Your task to perform on an android device: toggle javascript in the chrome app Image 0: 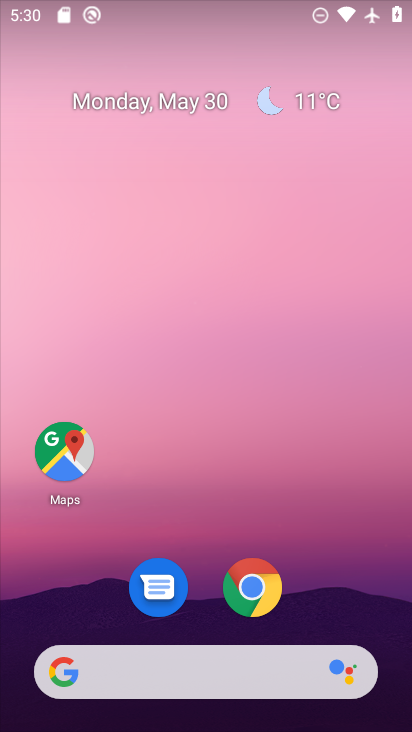
Step 0: drag from (303, 583) to (234, 10)
Your task to perform on an android device: toggle javascript in the chrome app Image 1: 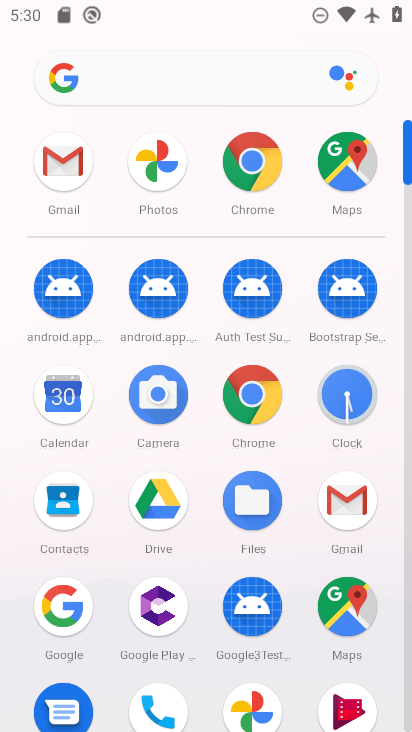
Step 1: drag from (18, 554) to (24, 222)
Your task to perform on an android device: toggle javascript in the chrome app Image 2: 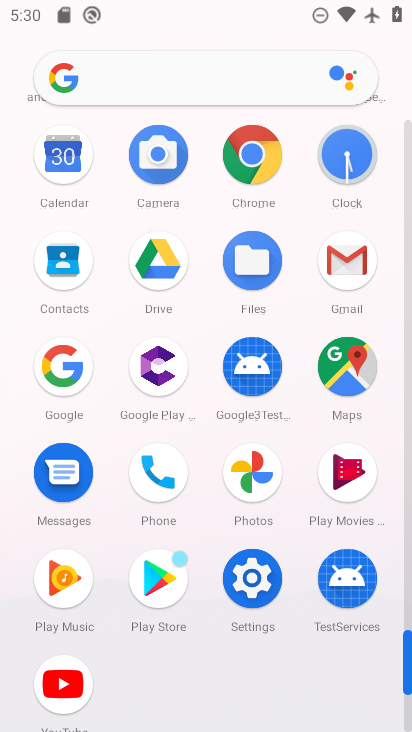
Step 2: click (253, 149)
Your task to perform on an android device: toggle javascript in the chrome app Image 3: 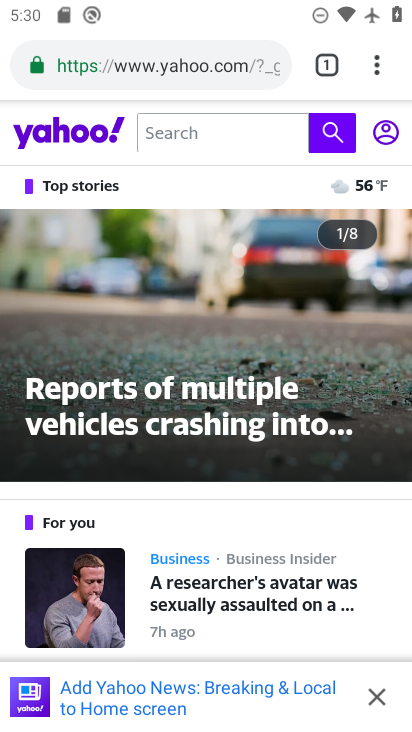
Step 3: drag from (375, 66) to (162, 626)
Your task to perform on an android device: toggle javascript in the chrome app Image 4: 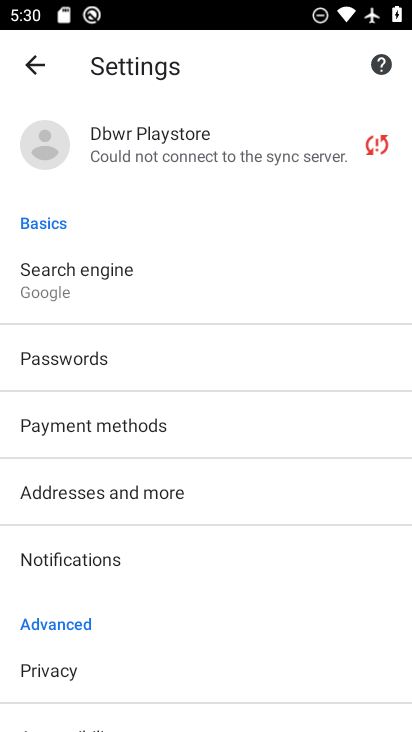
Step 4: drag from (247, 615) to (252, 285)
Your task to perform on an android device: toggle javascript in the chrome app Image 5: 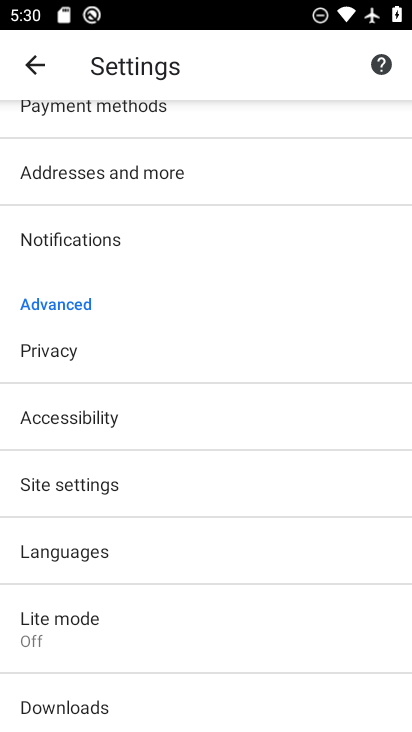
Step 5: click (133, 490)
Your task to perform on an android device: toggle javascript in the chrome app Image 6: 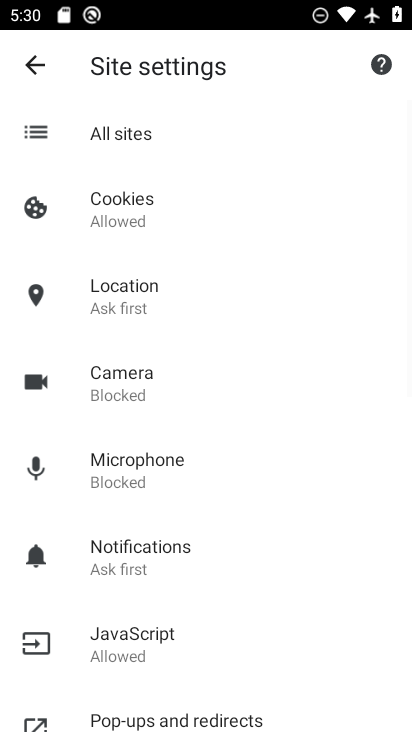
Step 6: drag from (264, 542) to (265, 192)
Your task to perform on an android device: toggle javascript in the chrome app Image 7: 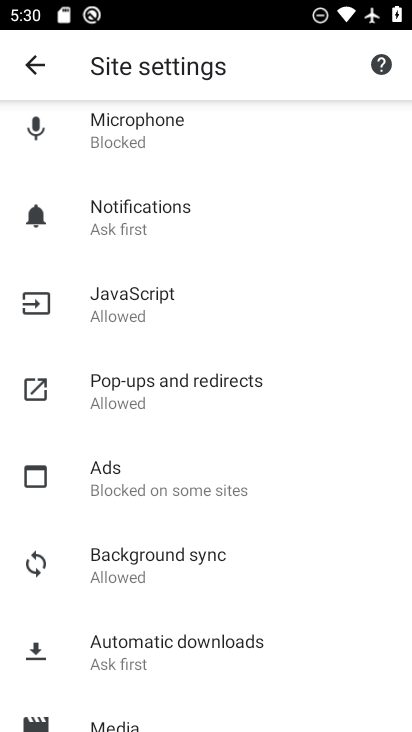
Step 7: click (158, 300)
Your task to perform on an android device: toggle javascript in the chrome app Image 8: 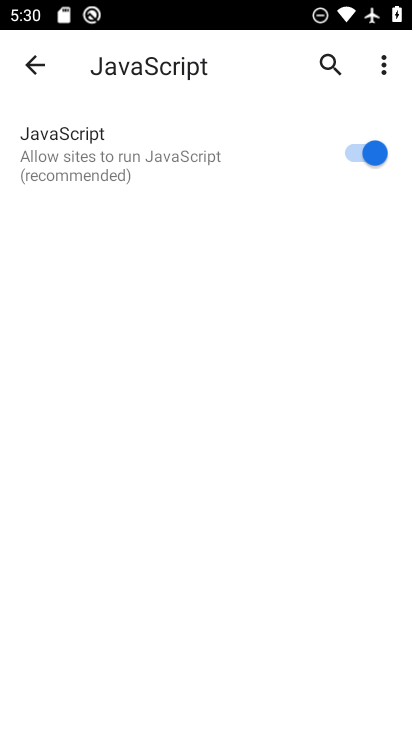
Step 8: click (345, 159)
Your task to perform on an android device: toggle javascript in the chrome app Image 9: 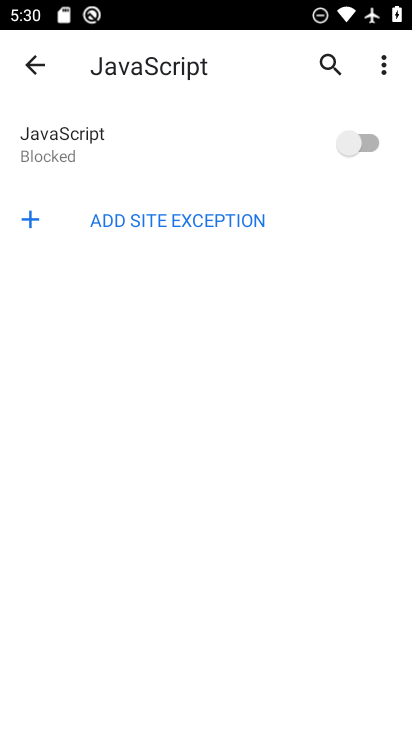
Step 9: task complete